Your task to perform on an android device: open device folders in google photos Image 0: 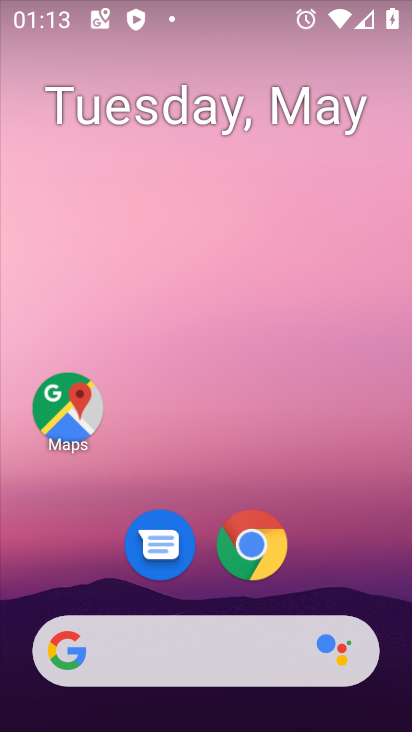
Step 0: drag from (313, 574) to (274, 44)
Your task to perform on an android device: open device folders in google photos Image 1: 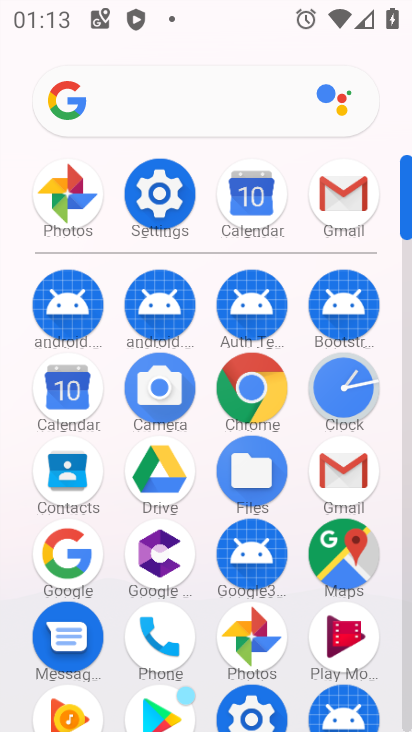
Step 1: click (248, 629)
Your task to perform on an android device: open device folders in google photos Image 2: 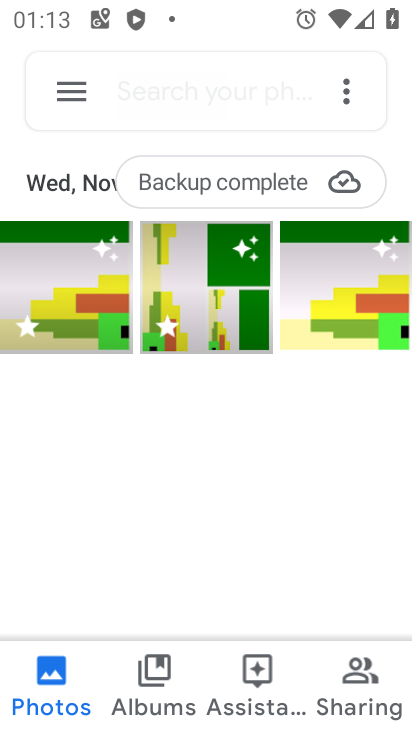
Step 2: click (62, 78)
Your task to perform on an android device: open device folders in google photos Image 3: 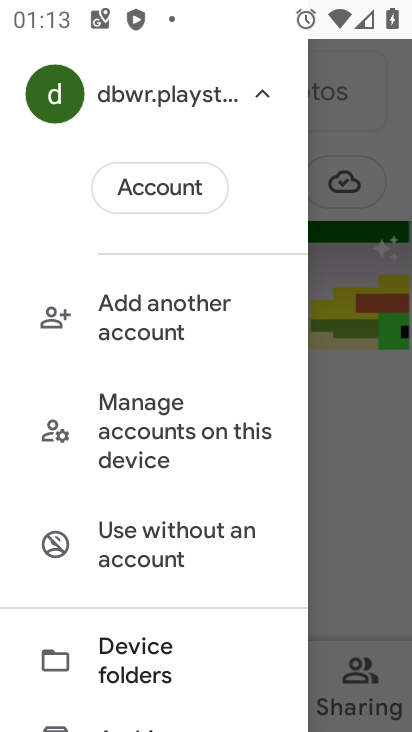
Step 3: click (149, 671)
Your task to perform on an android device: open device folders in google photos Image 4: 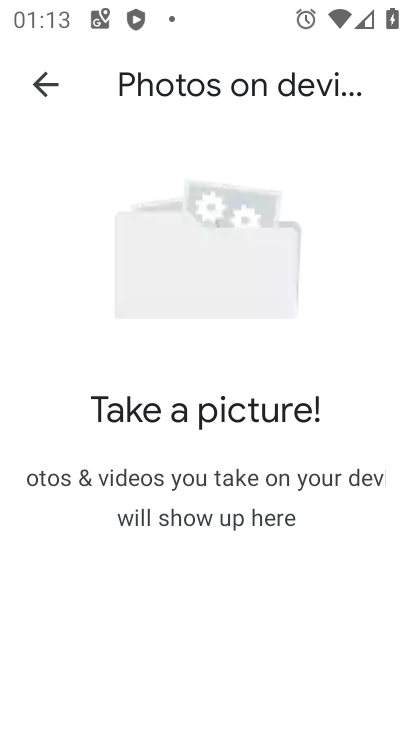
Step 4: task complete